Your task to perform on an android device: uninstall "eBay: The shopping marketplace" Image 0: 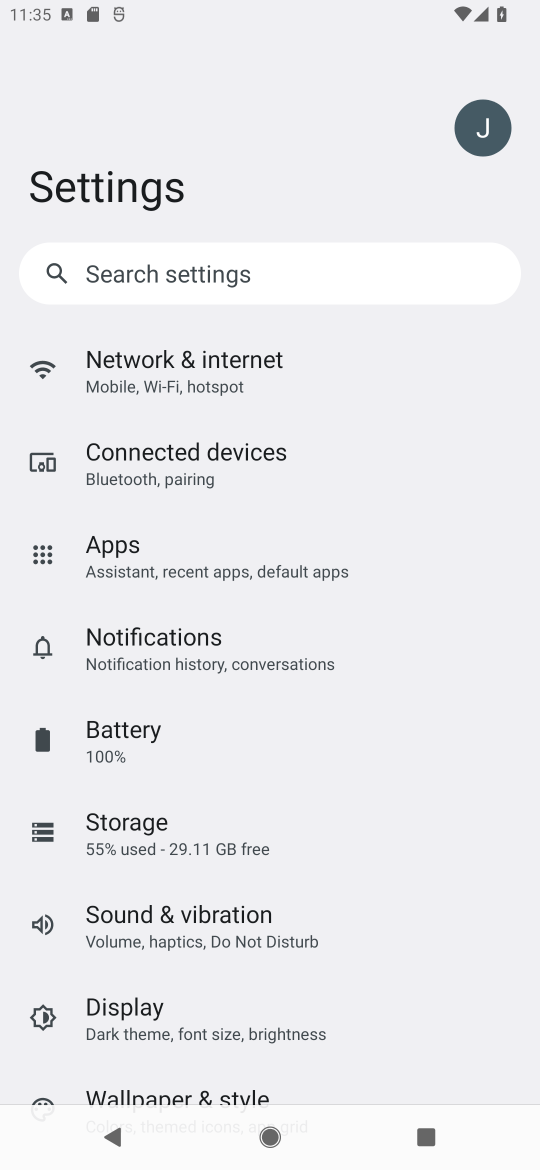
Step 0: press home button
Your task to perform on an android device: uninstall "eBay: The shopping marketplace" Image 1: 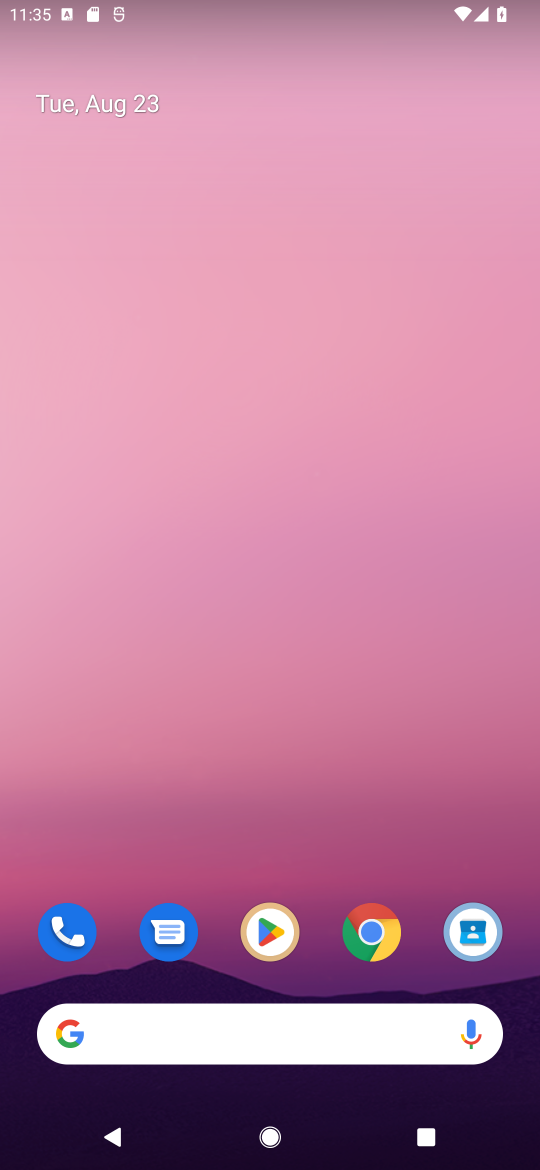
Step 1: click (268, 922)
Your task to perform on an android device: uninstall "eBay: The shopping marketplace" Image 2: 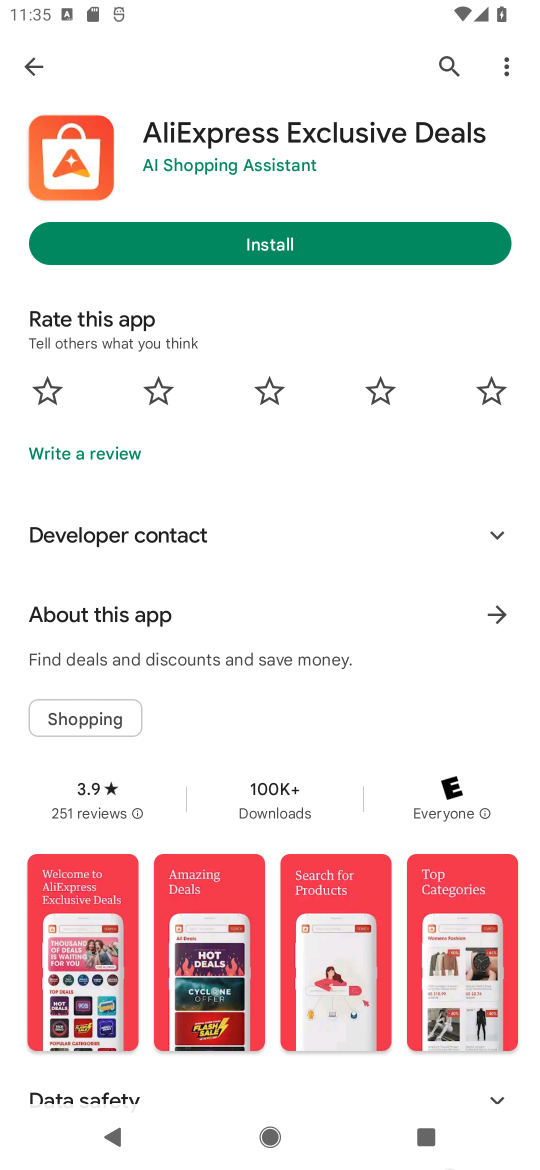
Step 2: click (440, 51)
Your task to perform on an android device: uninstall "eBay: The shopping marketplace" Image 3: 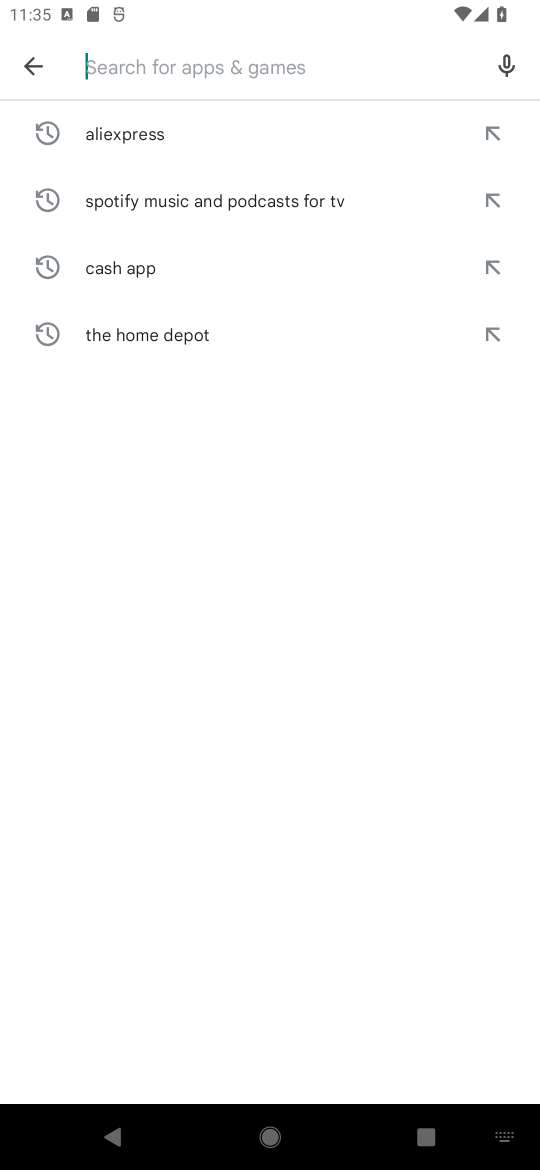
Step 3: click (199, 70)
Your task to perform on an android device: uninstall "eBay: The shopping marketplace" Image 4: 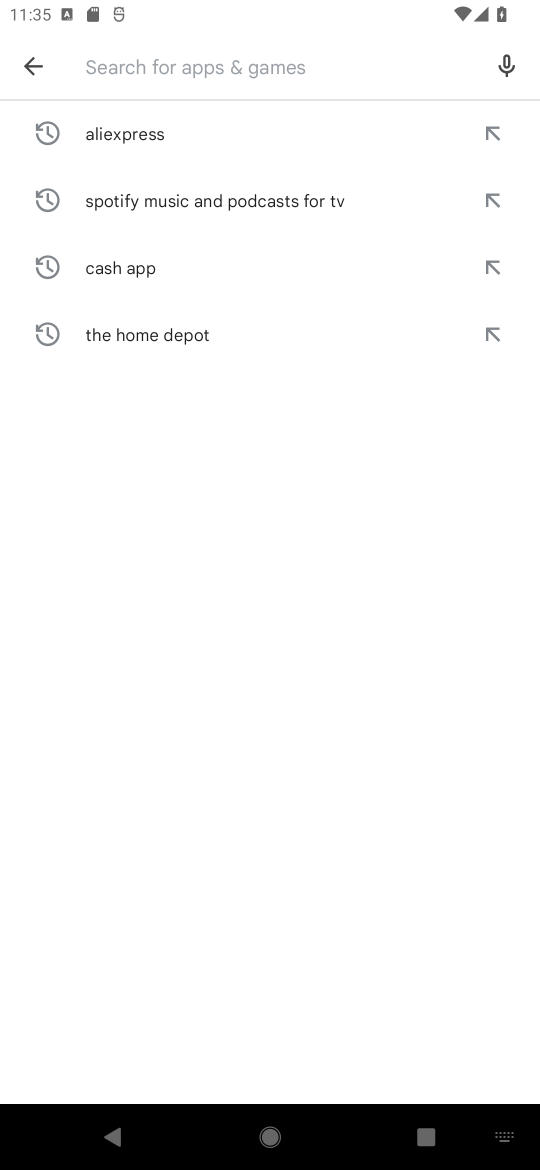
Step 4: type "eBay"
Your task to perform on an android device: uninstall "eBay: The shopping marketplace" Image 5: 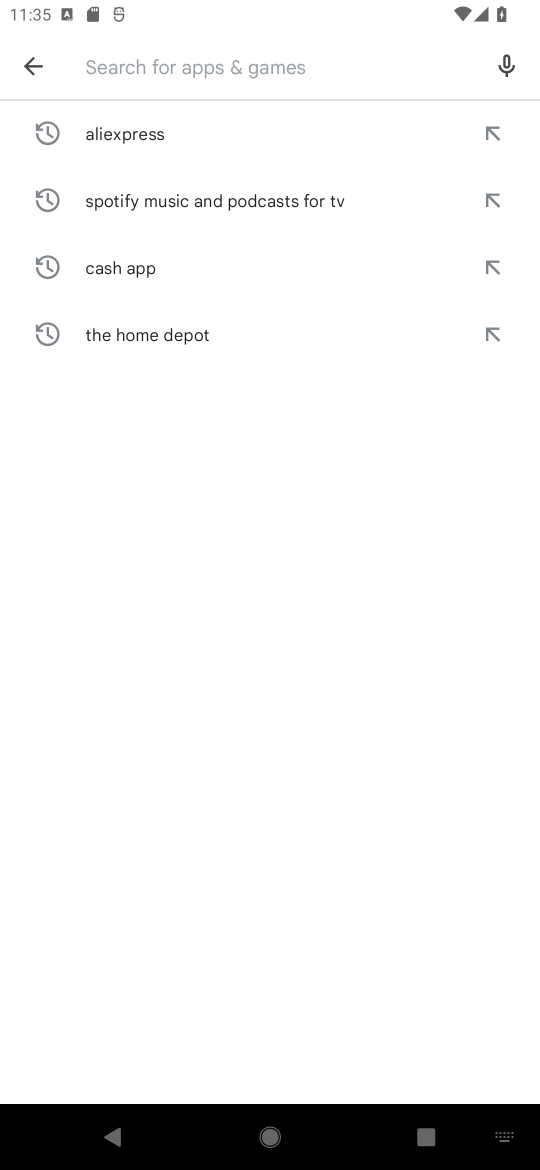
Step 5: click (337, 735)
Your task to perform on an android device: uninstall "eBay: The shopping marketplace" Image 6: 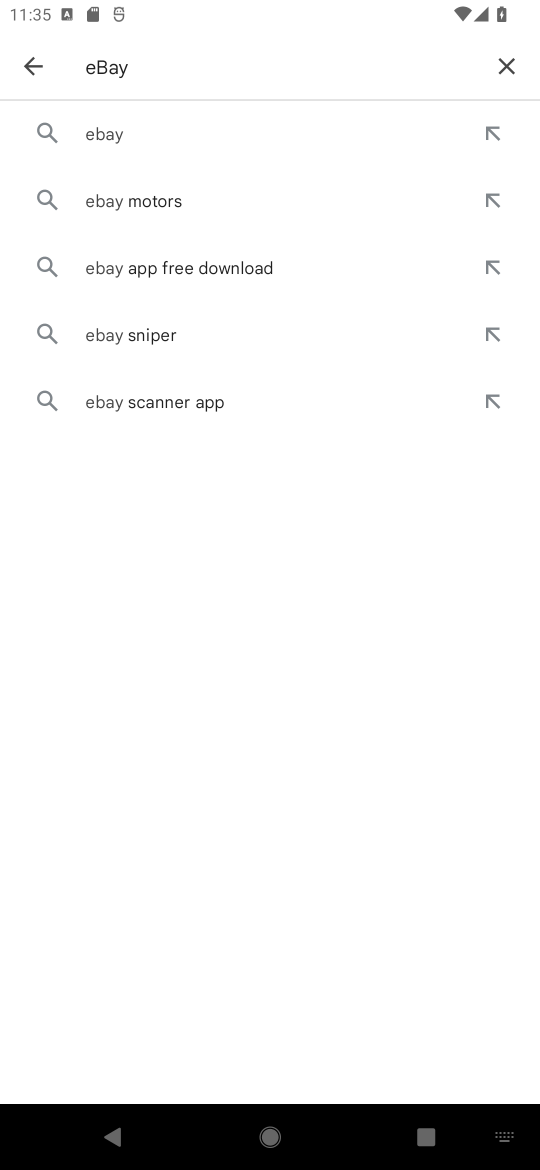
Step 6: click (114, 131)
Your task to perform on an android device: uninstall "eBay: The shopping marketplace" Image 7: 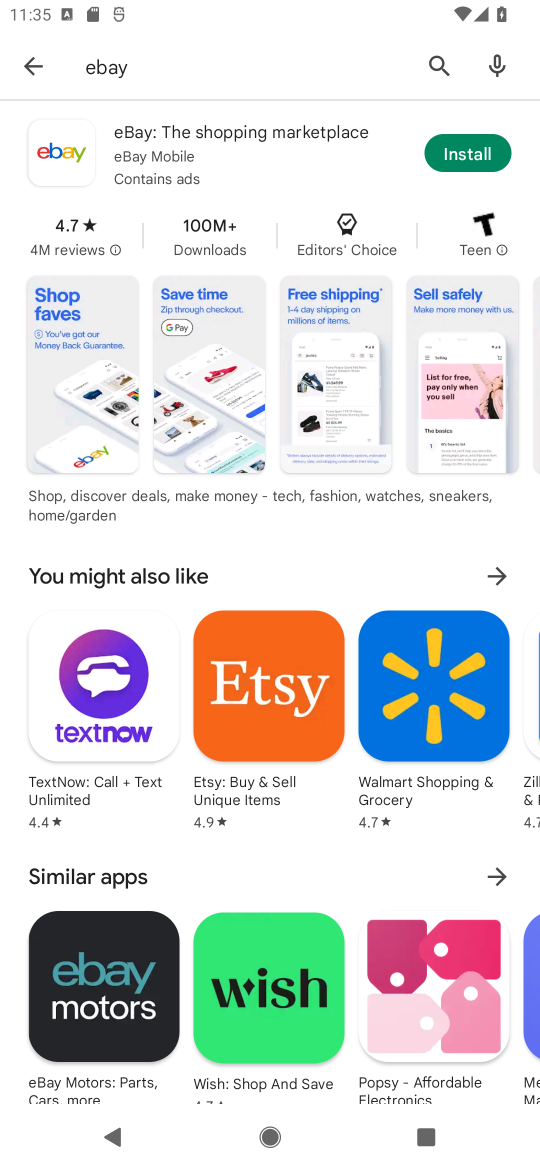
Step 7: task complete